Your task to perform on an android device: choose inbox layout in the gmail app Image 0: 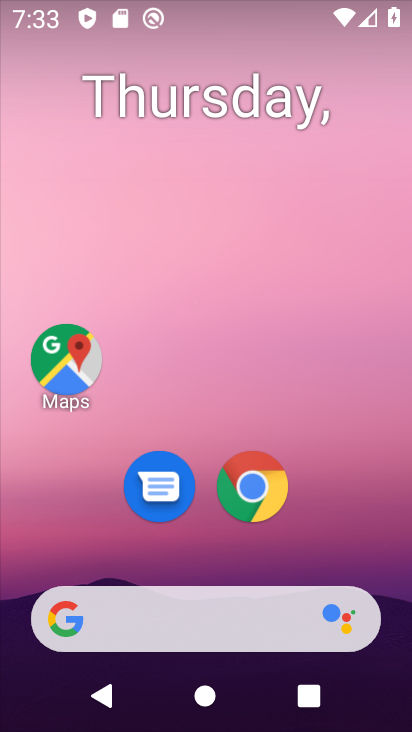
Step 0: drag from (224, 659) to (277, 42)
Your task to perform on an android device: choose inbox layout in the gmail app Image 1: 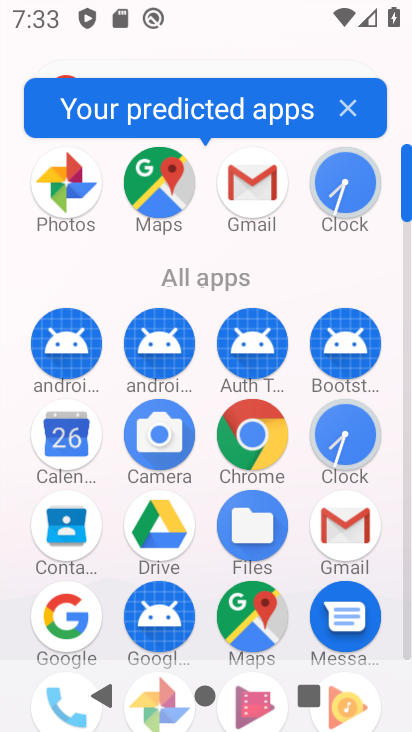
Step 1: drag from (245, 427) to (291, 100)
Your task to perform on an android device: choose inbox layout in the gmail app Image 2: 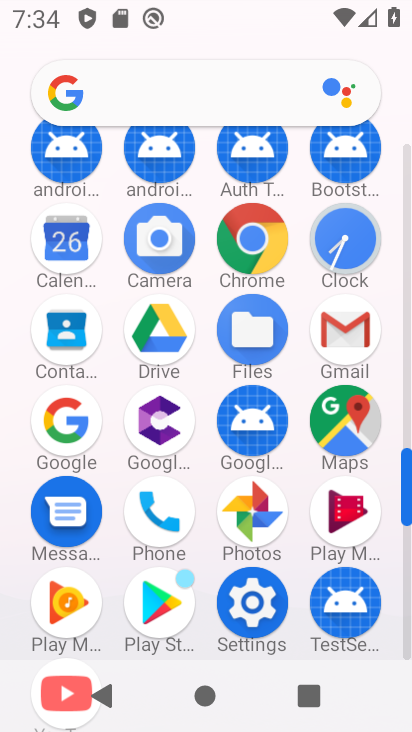
Step 2: click (342, 355)
Your task to perform on an android device: choose inbox layout in the gmail app Image 3: 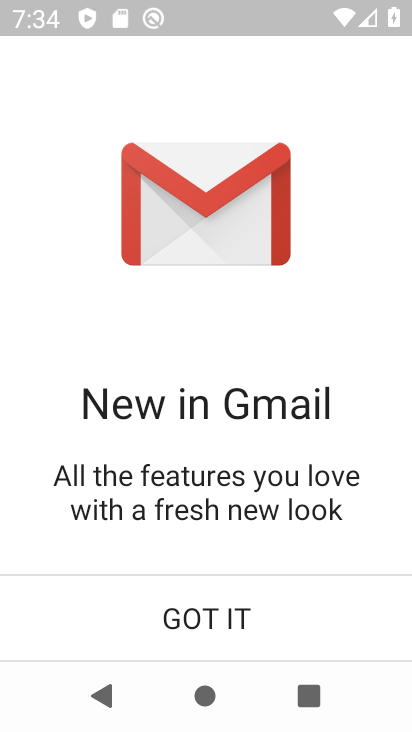
Step 3: click (220, 615)
Your task to perform on an android device: choose inbox layout in the gmail app Image 4: 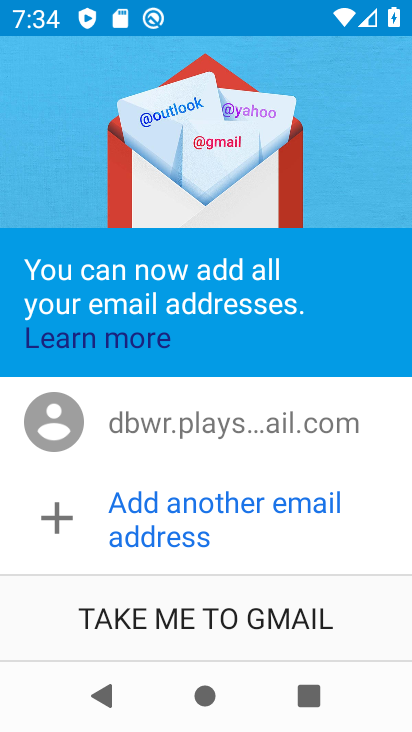
Step 4: click (263, 621)
Your task to perform on an android device: choose inbox layout in the gmail app Image 5: 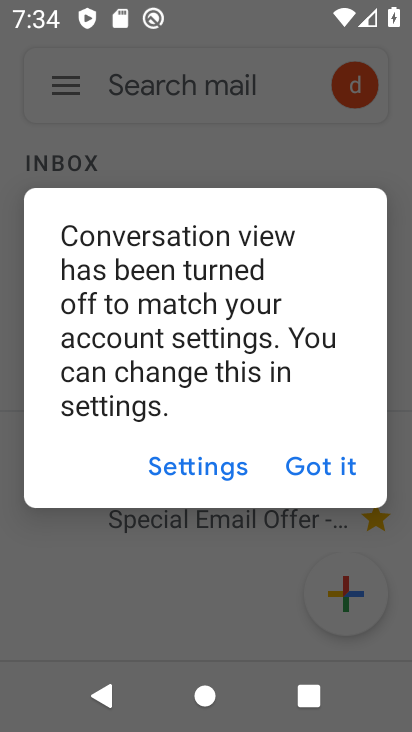
Step 5: click (324, 469)
Your task to perform on an android device: choose inbox layout in the gmail app Image 6: 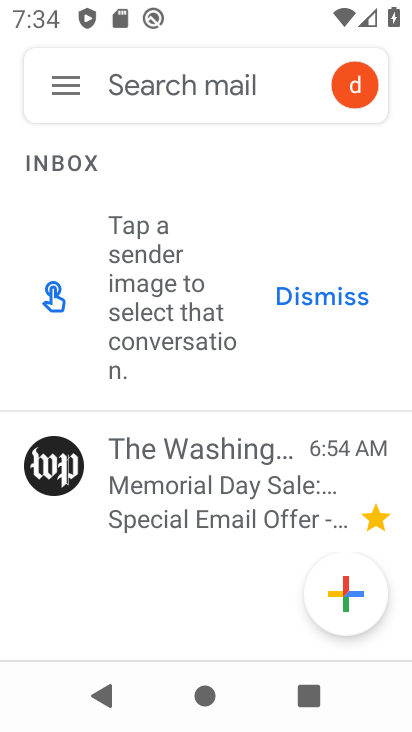
Step 6: task complete